Your task to perform on an android device: move an email to a new category in the gmail app Image 0: 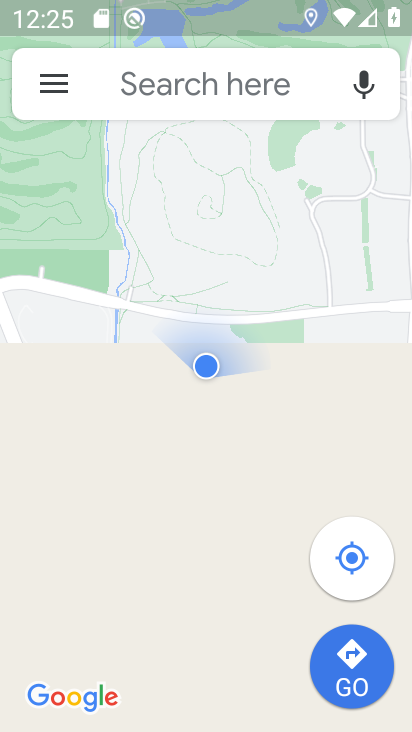
Step 0: press home button
Your task to perform on an android device: move an email to a new category in the gmail app Image 1: 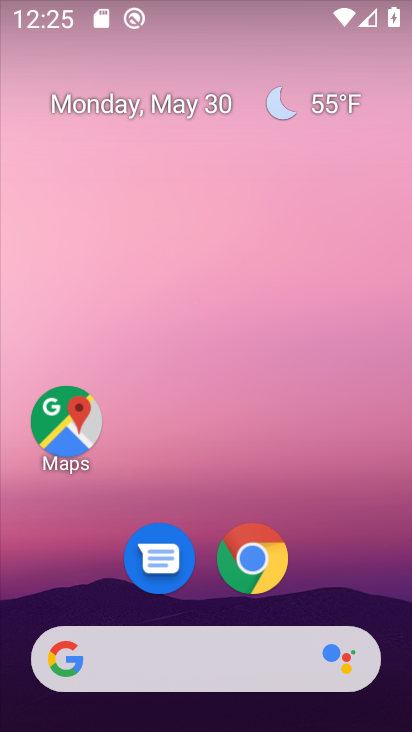
Step 1: drag from (357, 587) to (393, 73)
Your task to perform on an android device: move an email to a new category in the gmail app Image 2: 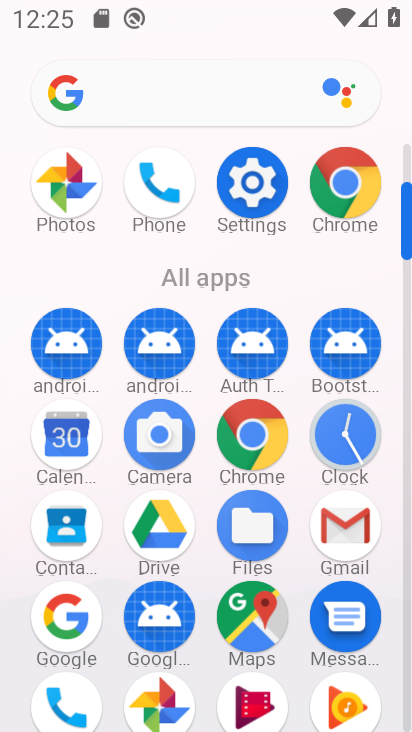
Step 2: click (368, 526)
Your task to perform on an android device: move an email to a new category in the gmail app Image 3: 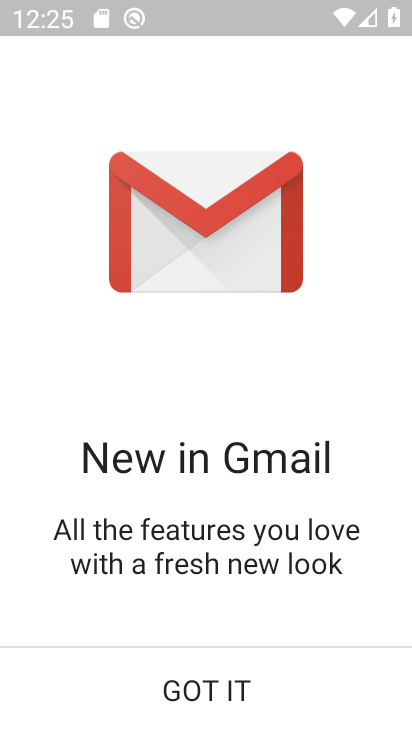
Step 3: click (172, 707)
Your task to perform on an android device: move an email to a new category in the gmail app Image 4: 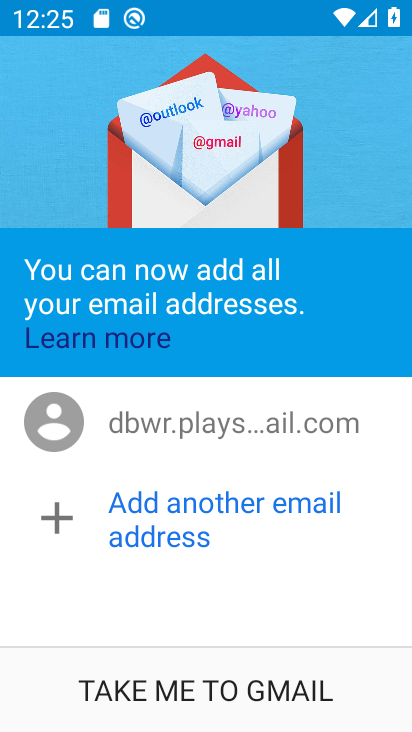
Step 4: click (172, 707)
Your task to perform on an android device: move an email to a new category in the gmail app Image 5: 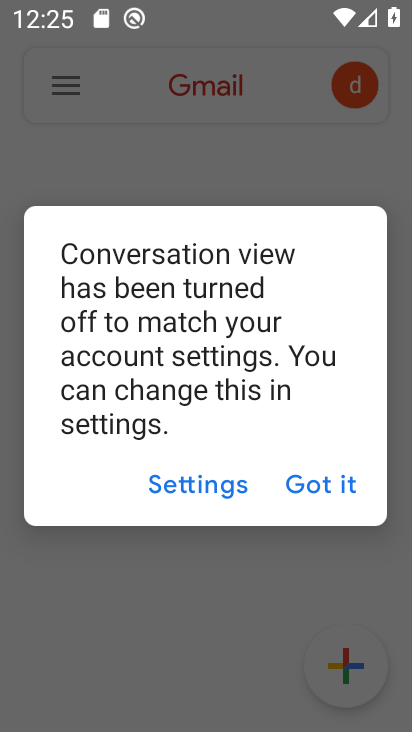
Step 5: click (308, 481)
Your task to perform on an android device: move an email to a new category in the gmail app Image 6: 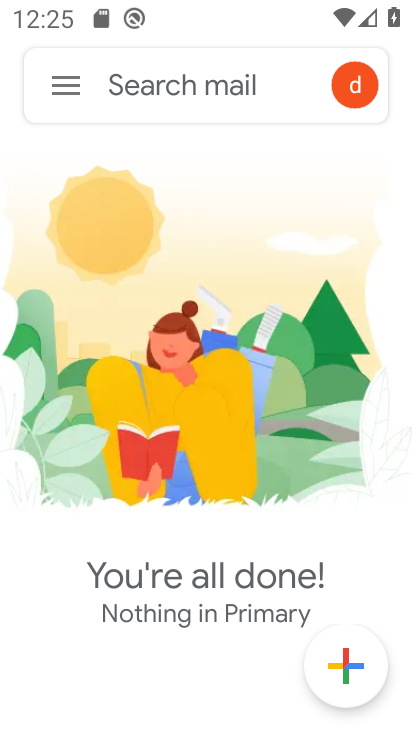
Step 6: click (57, 72)
Your task to perform on an android device: move an email to a new category in the gmail app Image 7: 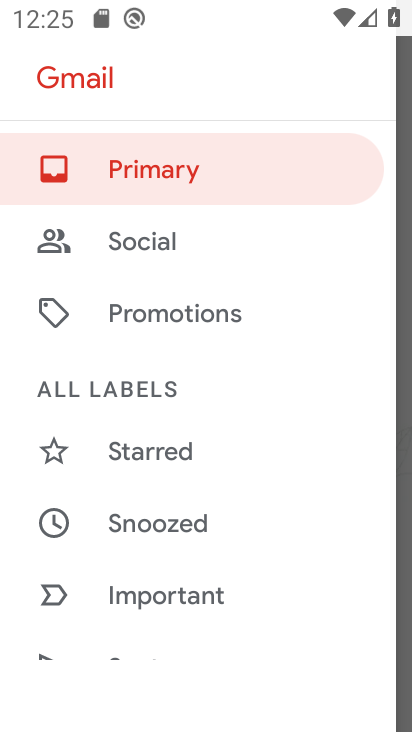
Step 7: drag from (201, 557) to (291, 156)
Your task to perform on an android device: move an email to a new category in the gmail app Image 8: 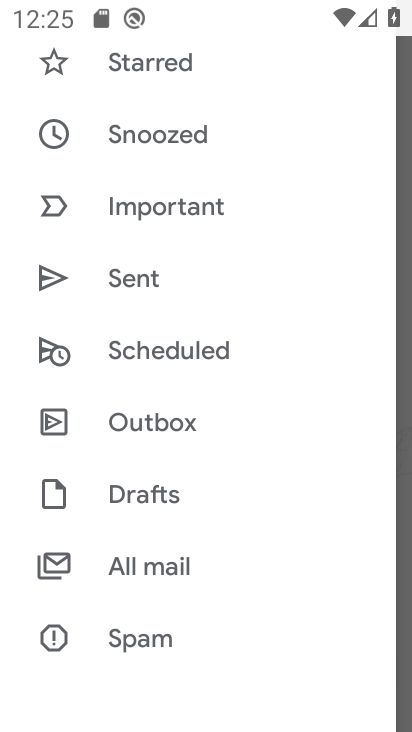
Step 8: click (168, 562)
Your task to perform on an android device: move an email to a new category in the gmail app Image 9: 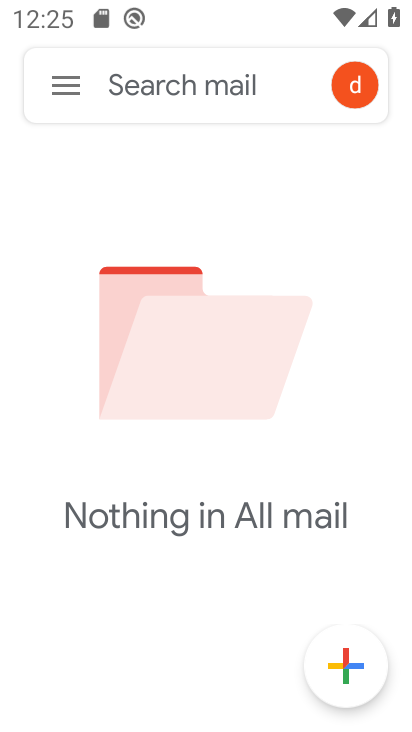
Step 9: task complete